Your task to perform on an android device: empty trash in the gmail app Image 0: 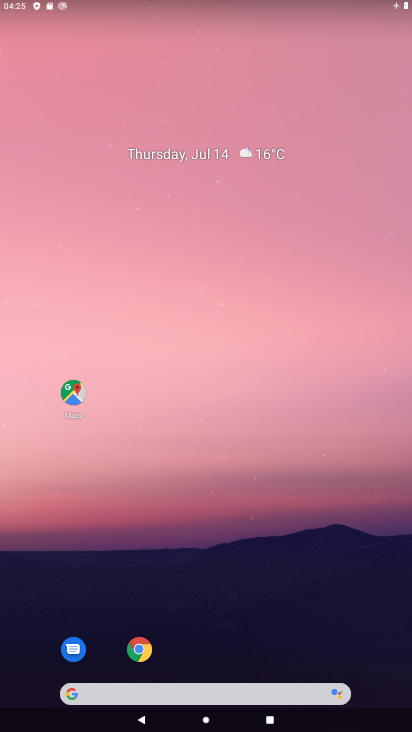
Step 0: drag from (246, 568) to (165, 11)
Your task to perform on an android device: empty trash in the gmail app Image 1: 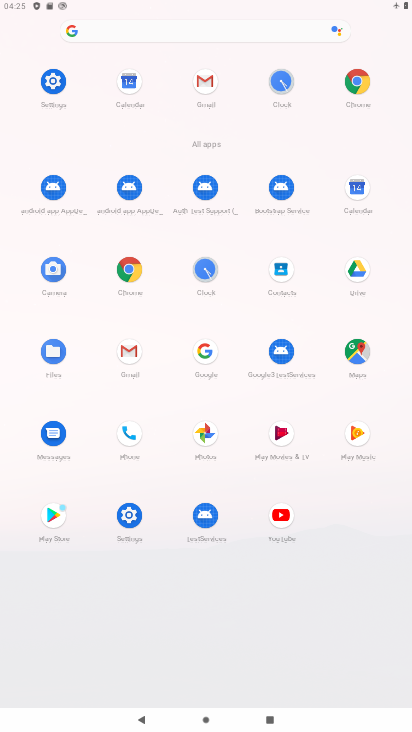
Step 1: click (197, 70)
Your task to perform on an android device: empty trash in the gmail app Image 2: 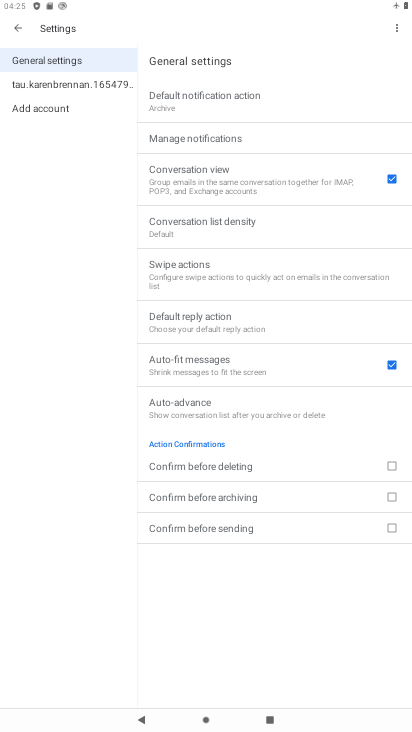
Step 2: click (16, 29)
Your task to perform on an android device: empty trash in the gmail app Image 3: 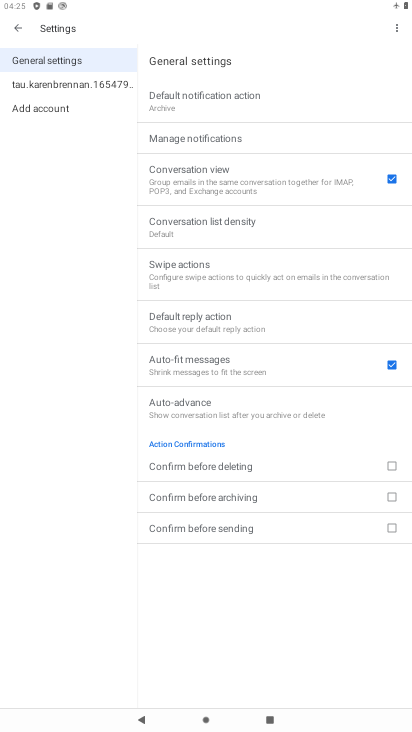
Step 3: click (16, 28)
Your task to perform on an android device: empty trash in the gmail app Image 4: 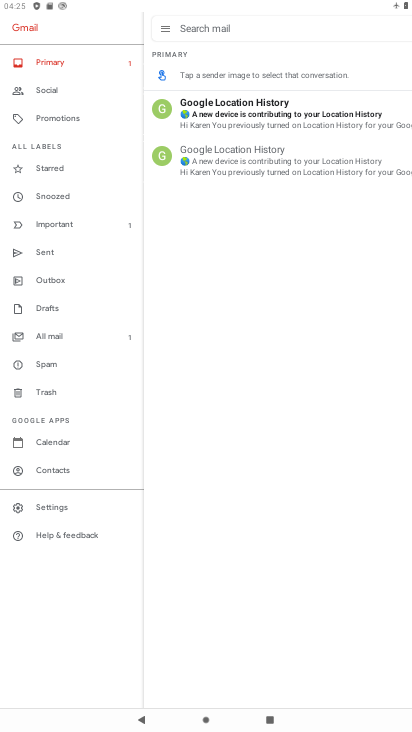
Step 4: click (61, 392)
Your task to perform on an android device: empty trash in the gmail app Image 5: 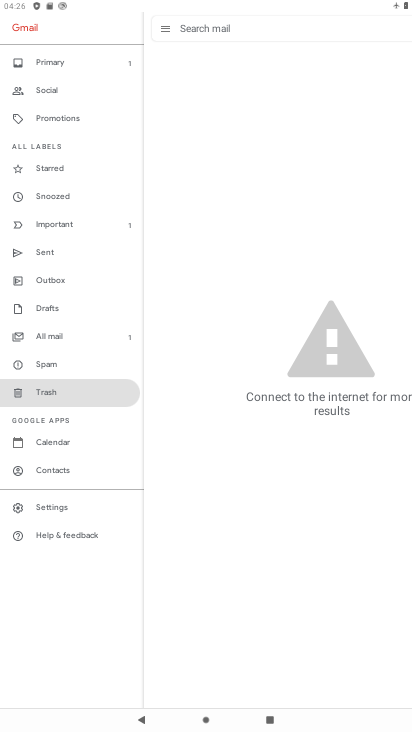
Step 5: task complete